Your task to perform on an android device: change text size in settings app Image 0: 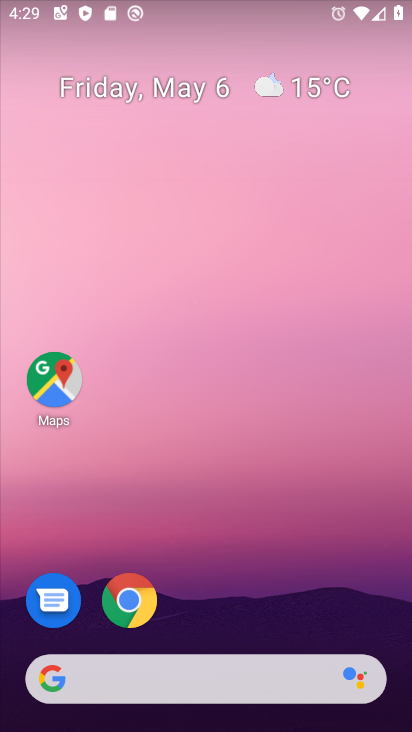
Step 0: drag from (232, 625) to (249, 210)
Your task to perform on an android device: change text size in settings app Image 1: 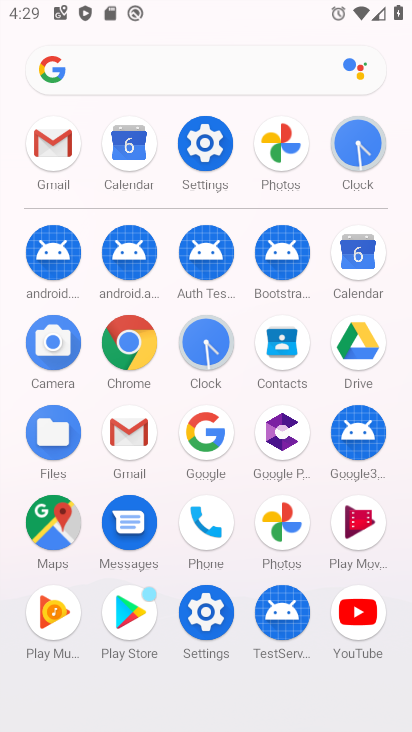
Step 1: click (206, 608)
Your task to perform on an android device: change text size in settings app Image 2: 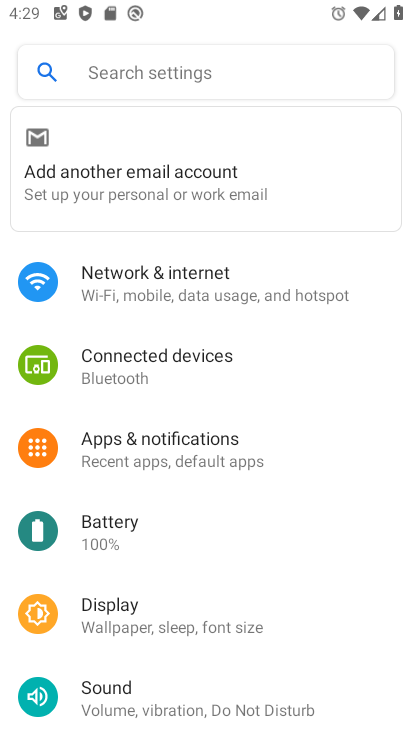
Step 2: click (172, 633)
Your task to perform on an android device: change text size in settings app Image 3: 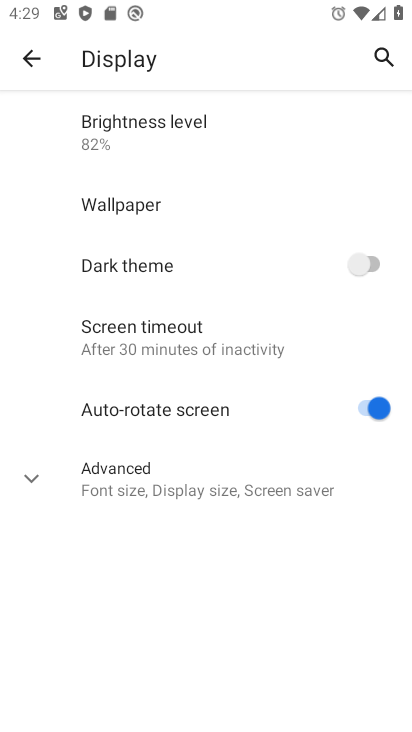
Step 3: click (136, 491)
Your task to perform on an android device: change text size in settings app Image 4: 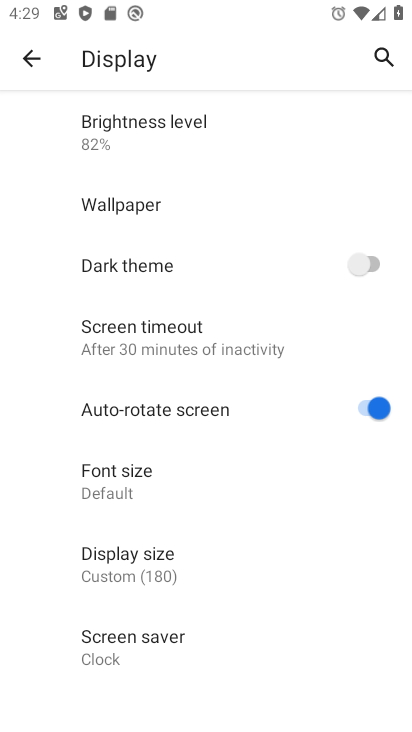
Step 4: click (131, 496)
Your task to perform on an android device: change text size in settings app Image 5: 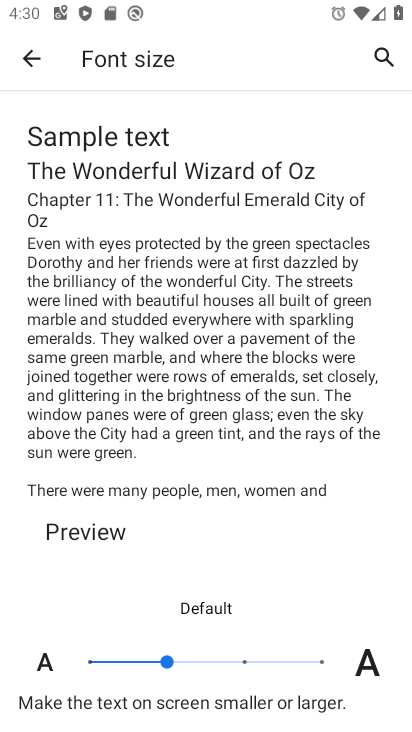
Step 5: click (318, 657)
Your task to perform on an android device: change text size in settings app Image 6: 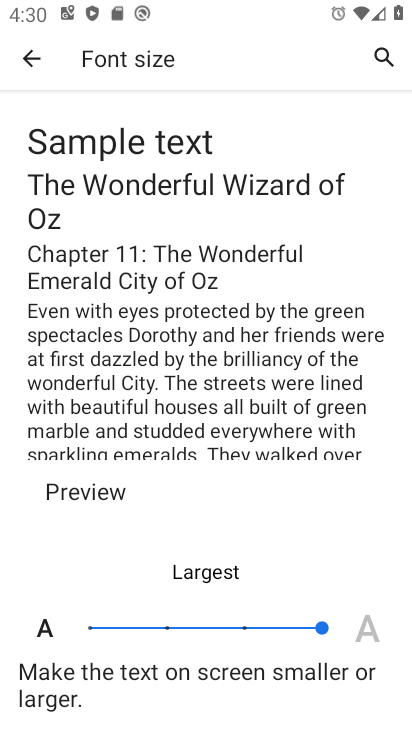
Step 6: task complete